Your task to perform on an android device: uninstall "Messenger Lite" Image 0: 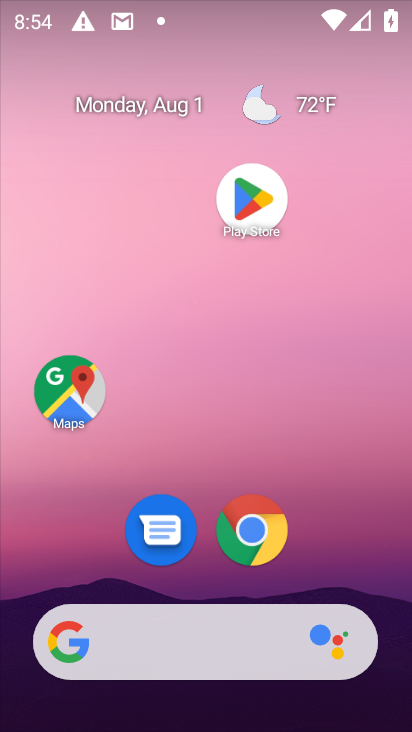
Step 0: click (277, 190)
Your task to perform on an android device: uninstall "Messenger Lite" Image 1: 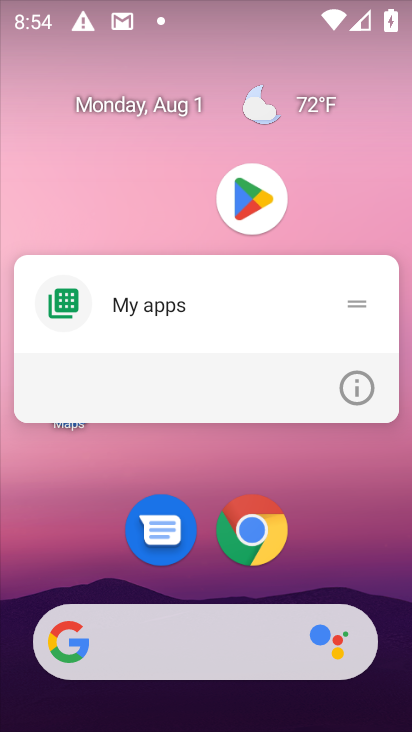
Step 1: click (277, 192)
Your task to perform on an android device: uninstall "Messenger Lite" Image 2: 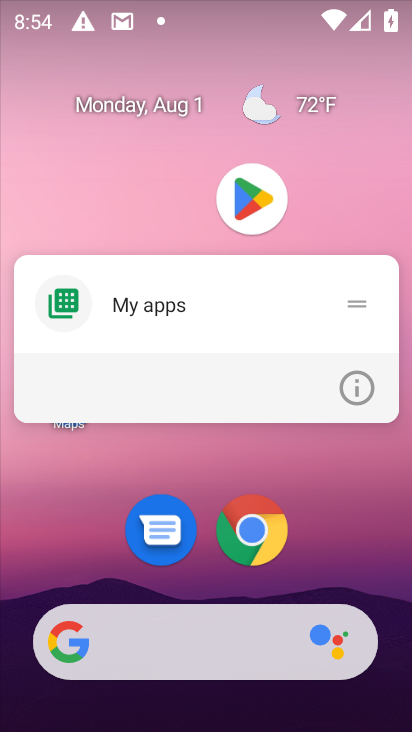
Step 2: click (233, 180)
Your task to perform on an android device: uninstall "Messenger Lite" Image 3: 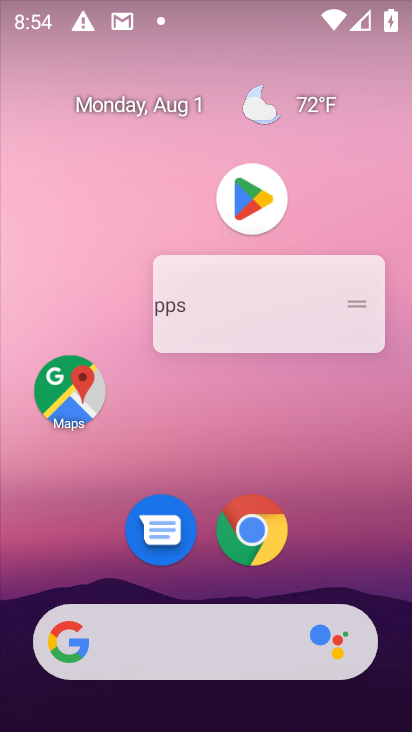
Step 3: click (258, 161)
Your task to perform on an android device: uninstall "Messenger Lite" Image 4: 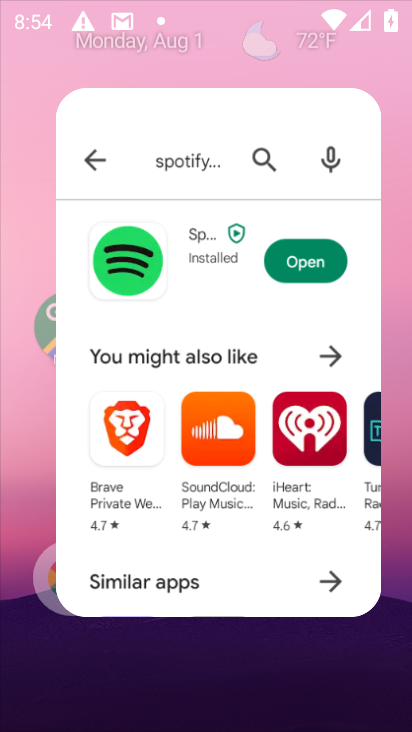
Step 4: click (271, 202)
Your task to perform on an android device: uninstall "Messenger Lite" Image 5: 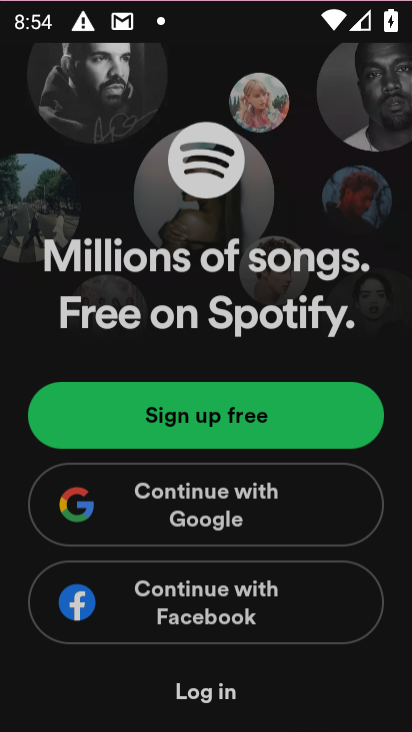
Step 5: click (269, 80)
Your task to perform on an android device: uninstall "Messenger Lite" Image 6: 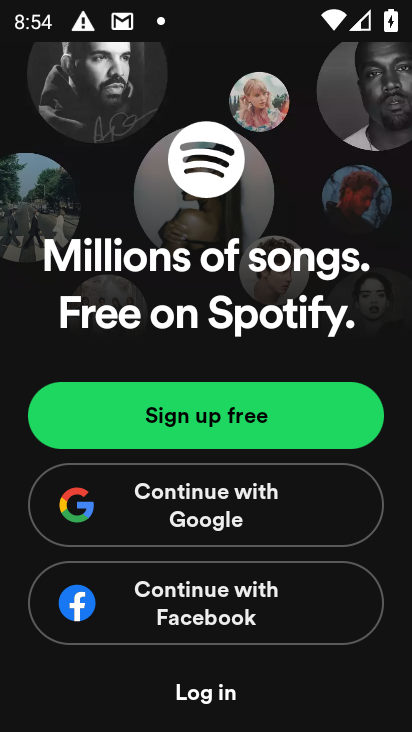
Step 6: press back button
Your task to perform on an android device: uninstall "Messenger Lite" Image 7: 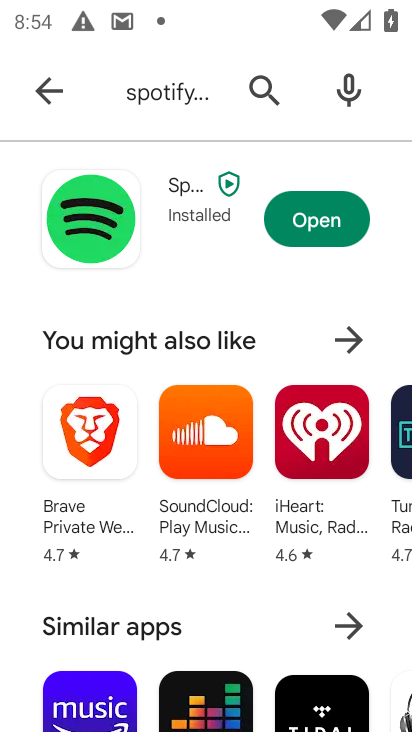
Step 7: click (47, 90)
Your task to perform on an android device: uninstall "Messenger Lite" Image 8: 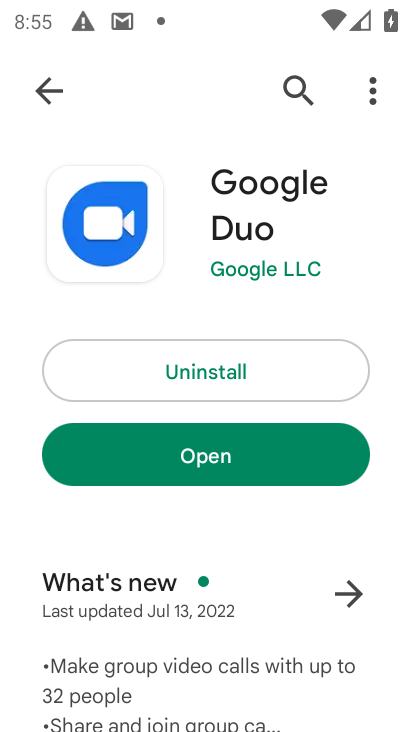
Step 8: click (301, 79)
Your task to perform on an android device: uninstall "Messenger Lite" Image 9: 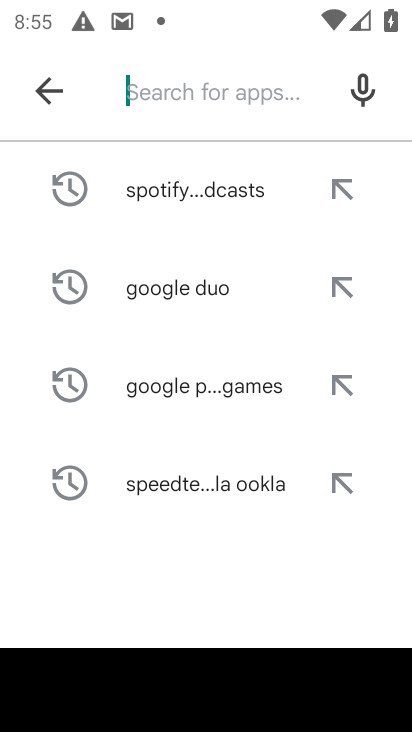
Step 9: type "messenger lite"
Your task to perform on an android device: uninstall "Messenger Lite" Image 10: 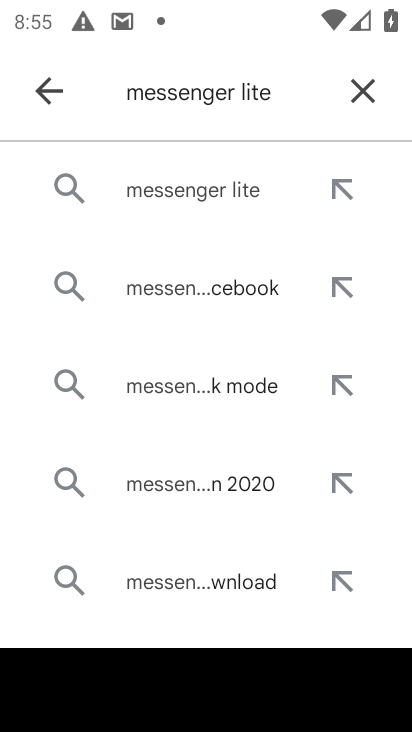
Step 10: click (184, 185)
Your task to perform on an android device: uninstall "Messenger Lite" Image 11: 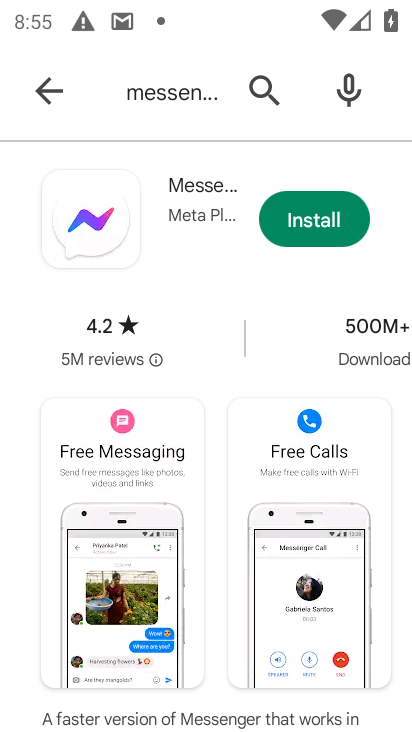
Step 11: task complete